Your task to perform on an android device: turn on location history Image 0: 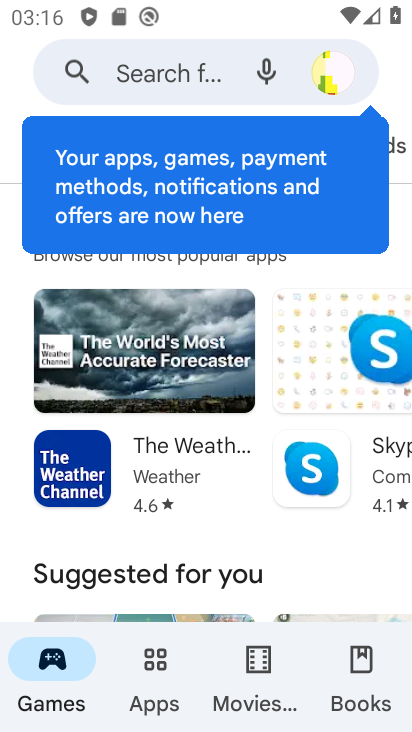
Step 0: press home button
Your task to perform on an android device: turn on location history Image 1: 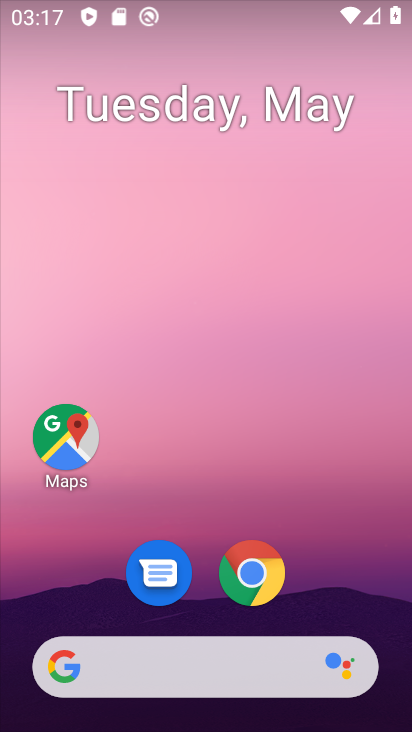
Step 1: drag from (87, 533) to (227, 120)
Your task to perform on an android device: turn on location history Image 2: 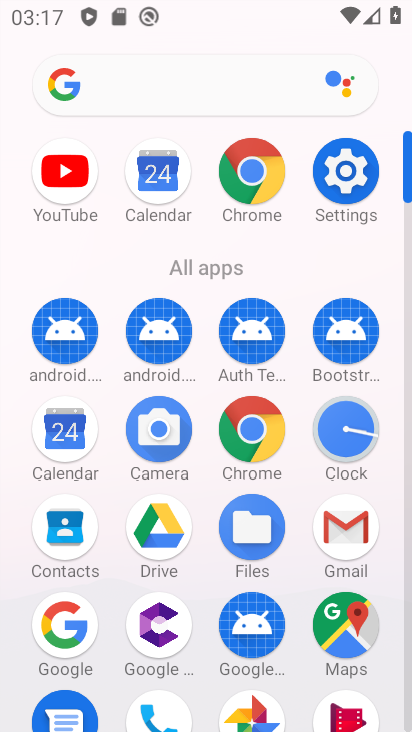
Step 2: click (350, 180)
Your task to perform on an android device: turn on location history Image 3: 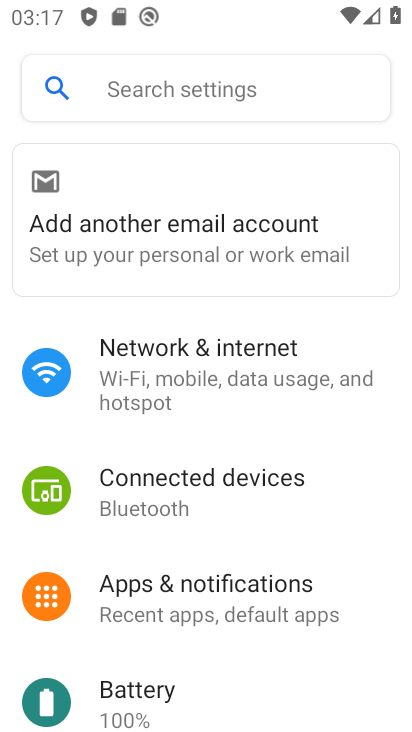
Step 3: drag from (169, 611) to (248, 107)
Your task to perform on an android device: turn on location history Image 4: 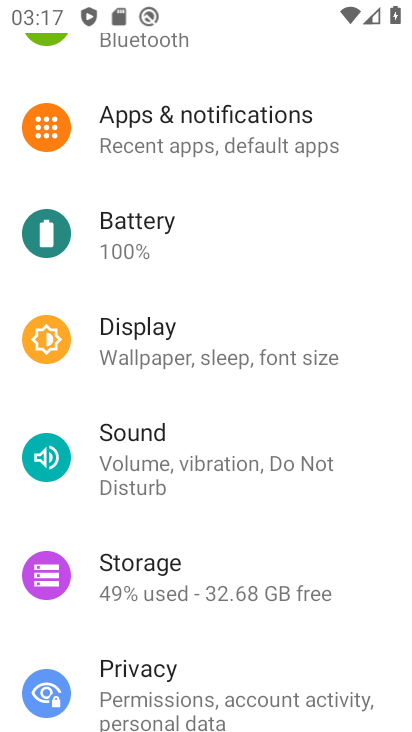
Step 4: drag from (133, 661) to (230, 118)
Your task to perform on an android device: turn on location history Image 5: 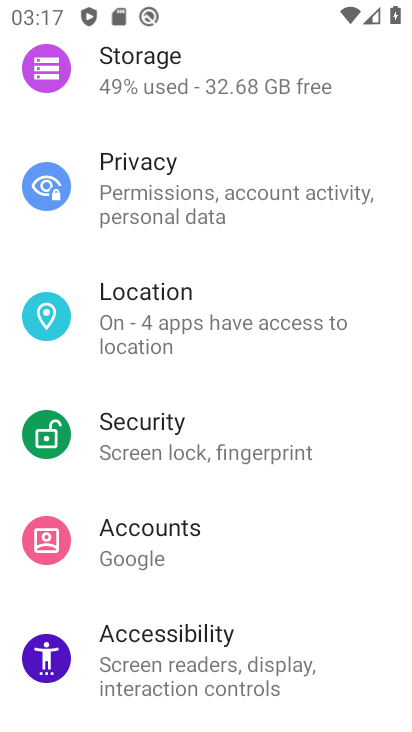
Step 5: click (138, 319)
Your task to perform on an android device: turn on location history Image 6: 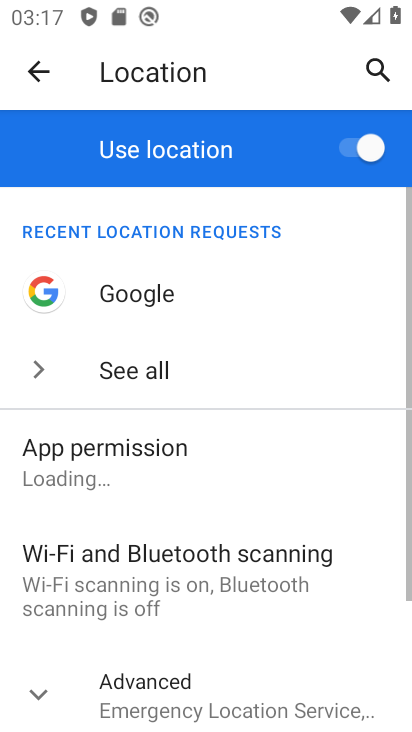
Step 6: drag from (127, 641) to (258, 189)
Your task to perform on an android device: turn on location history Image 7: 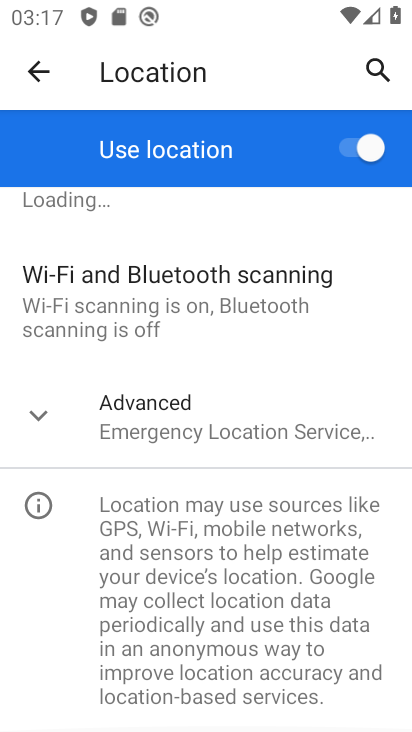
Step 7: click (160, 418)
Your task to perform on an android device: turn on location history Image 8: 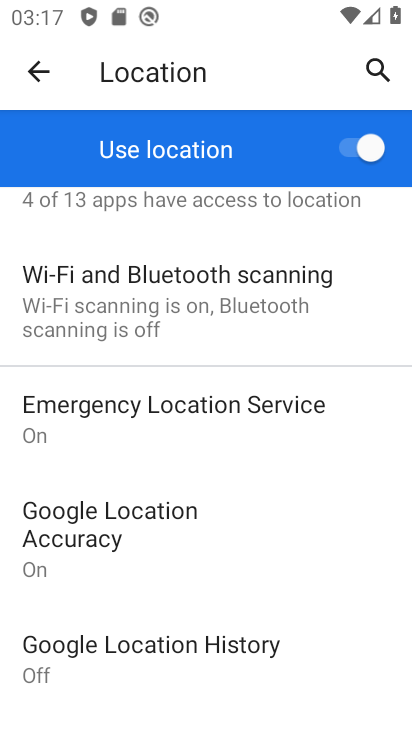
Step 8: click (133, 651)
Your task to perform on an android device: turn on location history Image 9: 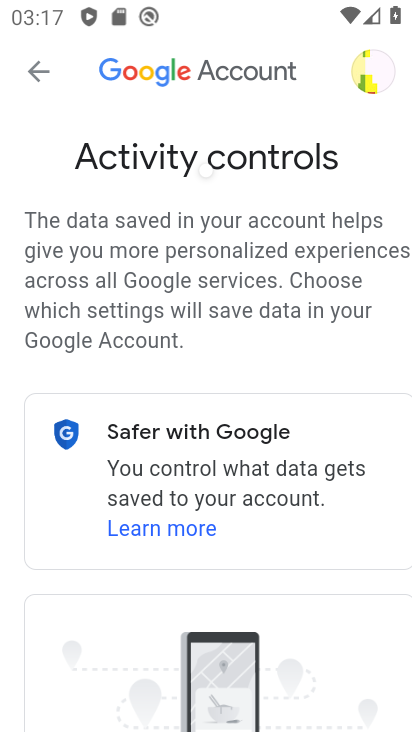
Step 9: drag from (165, 719) to (243, 86)
Your task to perform on an android device: turn on location history Image 10: 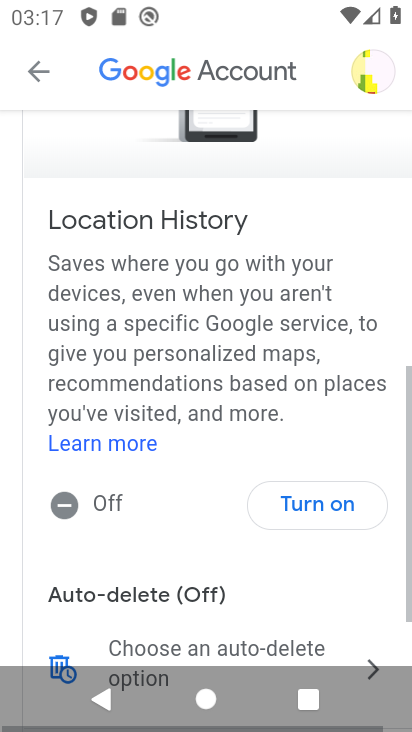
Step 10: drag from (173, 587) to (145, 480)
Your task to perform on an android device: turn on location history Image 11: 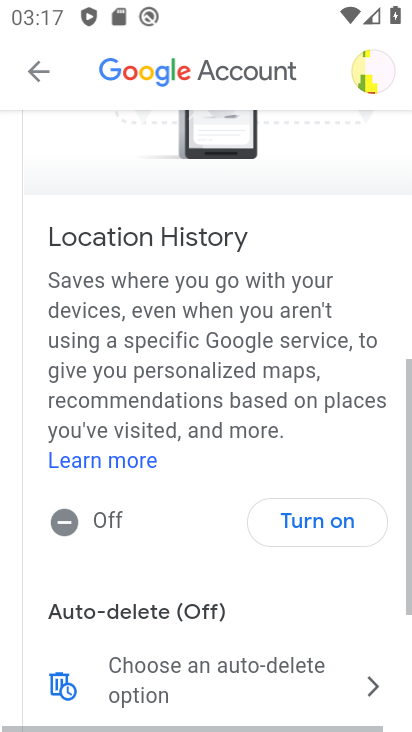
Step 11: click (342, 512)
Your task to perform on an android device: turn on location history Image 12: 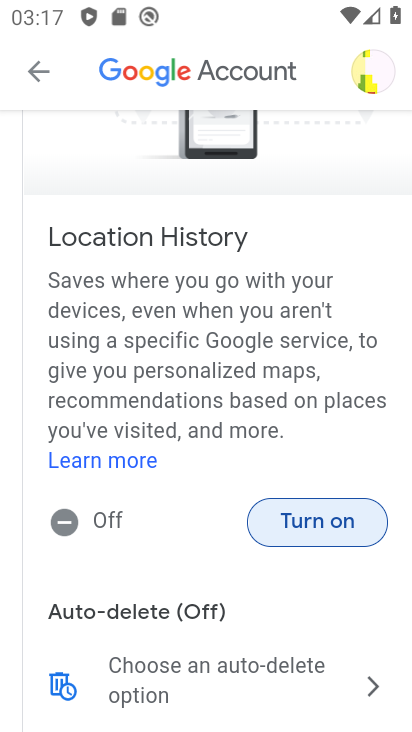
Step 12: click (295, 530)
Your task to perform on an android device: turn on location history Image 13: 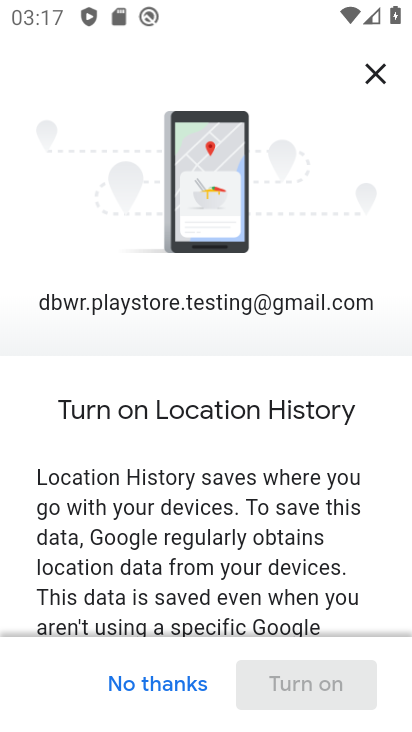
Step 13: drag from (188, 620) to (266, 65)
Your task to perform on an android device: turn on location history Image 14: 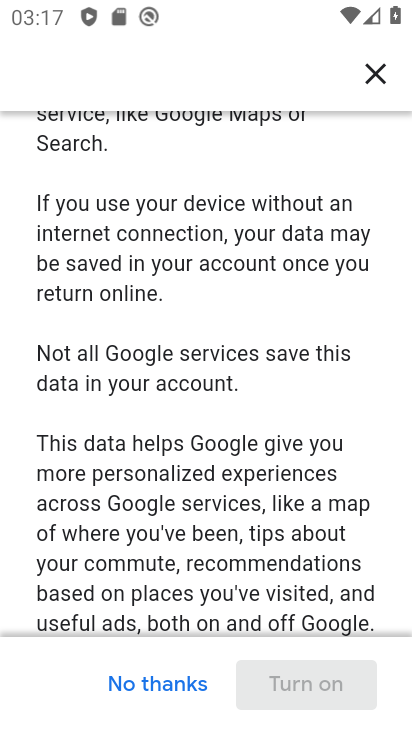
Step 14: drag from (236, 608) to (265, 49)
Your task to perform on an android device: turn on location history Image 15: 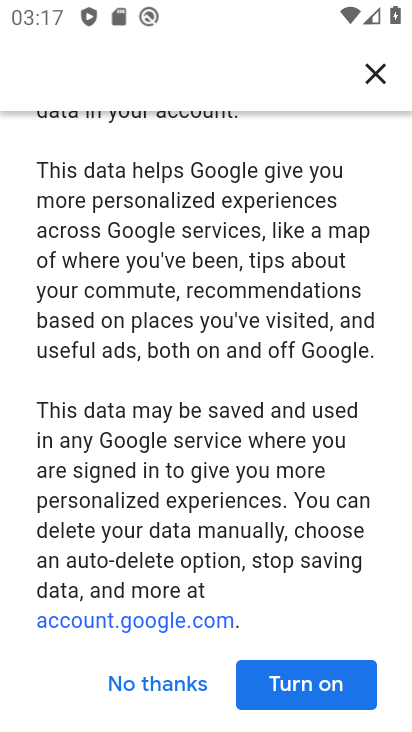
Step 15: click (283, 677)
Your task to perform on an android device: turn on location history Image 16: 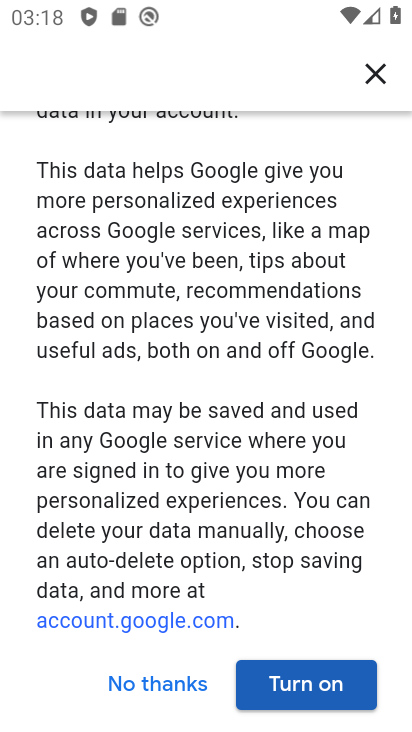
Step 16: click (297, 688)
Your task to perform on an android device: turn on location history Image 17: 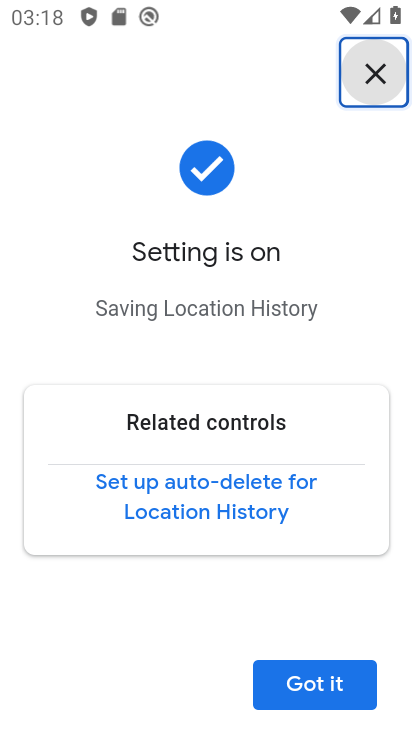
Step 17: task complete